Your task to perform on an android device: Show me productivity apps on the Play Store Image 0: 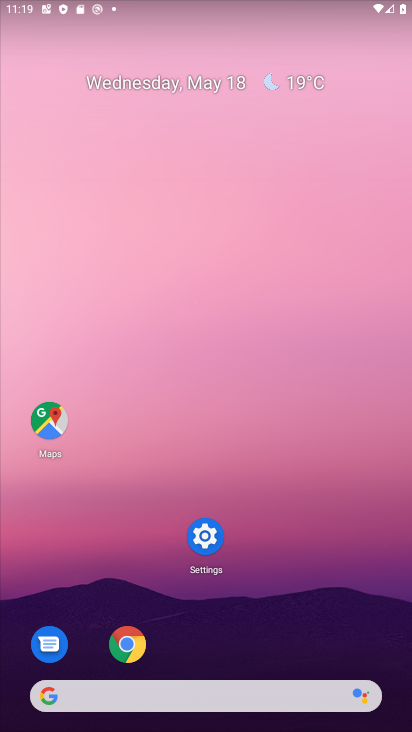
Step 0: drag from (339, 583) to (278, 198)
Your task to perform on an android device: Show me productivity apps on the Play Store Image 1: 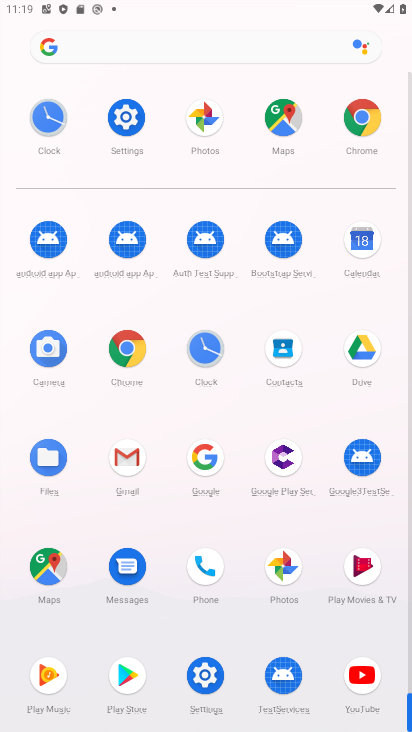
Step 1: click (131, 677)
Your task to perform on an android device: Show me productivity apps on the Play Store Image 2: 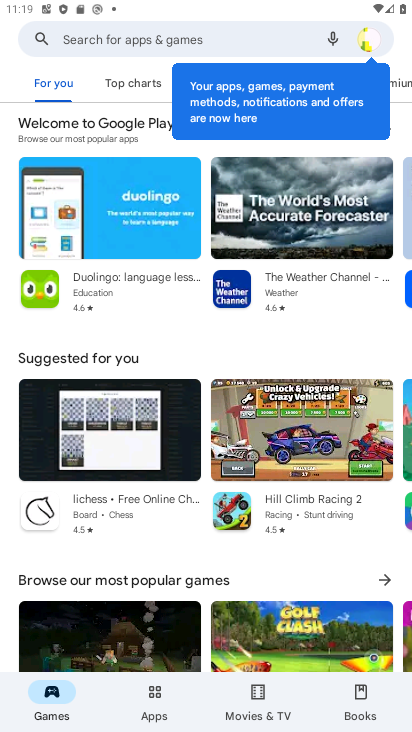
Step 2: click (151, 710)
Your task to perform on an android device: Show me productivity apps on the Play Store Image 3: 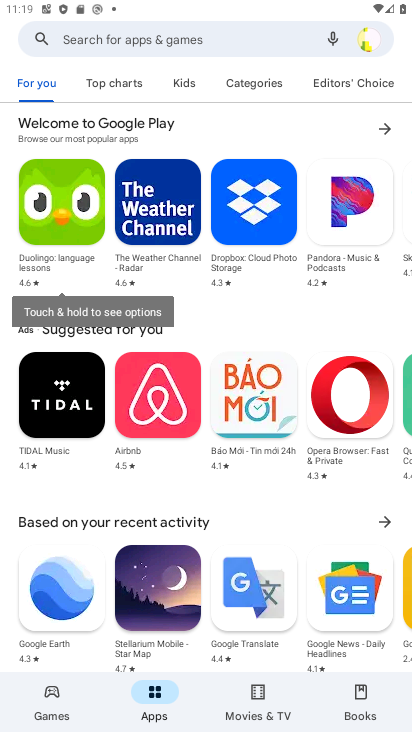
Step 3: drag from (280, 551) to (331, 198)
Your task to perform on an android device: Show me productivity apps on the Play Store Image 4: 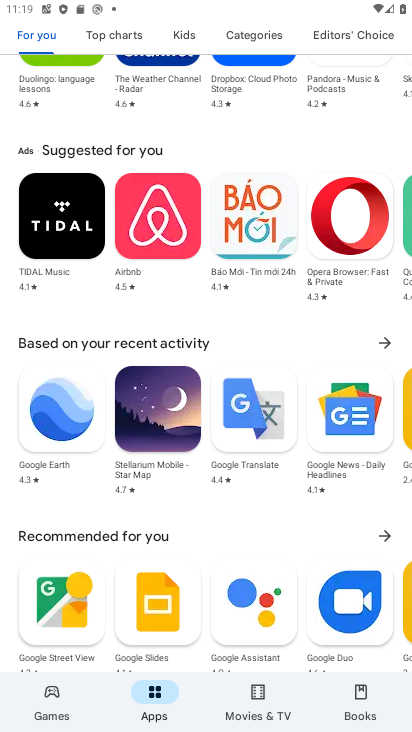
Step 4: drag from (271, 551) to (317, 146)
Your task to perform on an android device: Show me productivity apps on the Play Store Image 5: 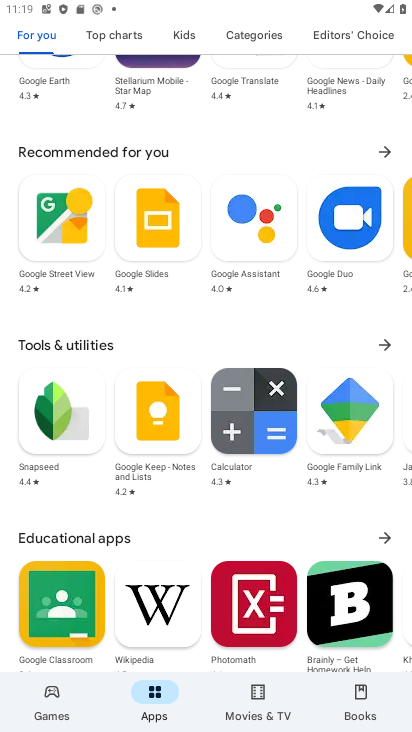
Step 5: drag from (252, 521) to (306, 194)
Your task to perform on an android device: Show me productivity apps on the Play Store Image 6: 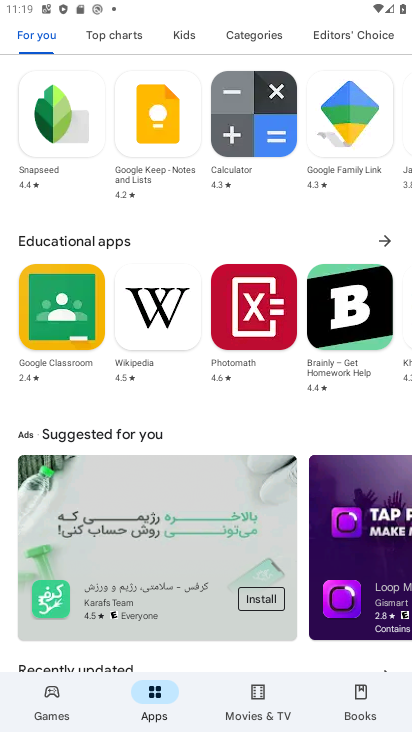
Step 6: drag from (223, 524) to (259, 268)
Your task to perform on an android device: Show me productivity apps on the Play Store Image 7: 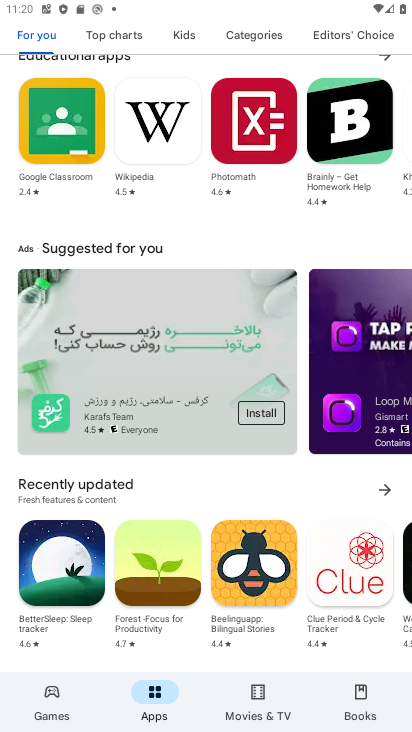
Step 7: click (262, 258)
Your task to perform on an android device: Show me productivity apps on the Play Store Image 8: 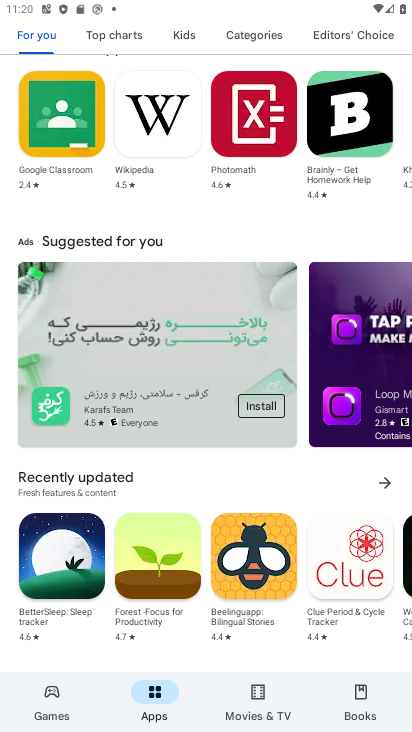
Step 8: task complete